Your task to perform on an android device: Open the calendar app, open the side menu, and click the "Day" option Image 0: 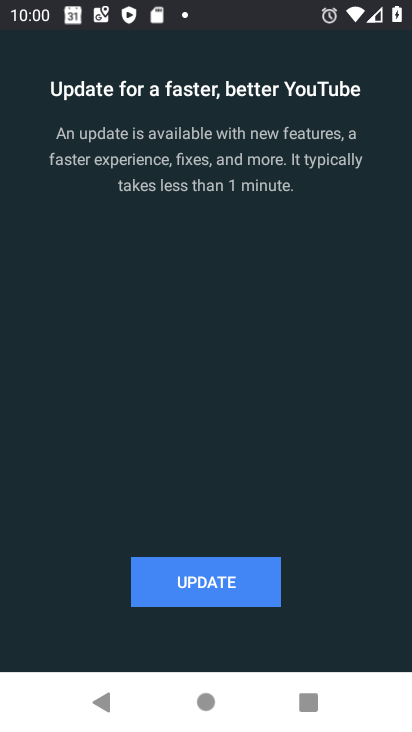
Step 0: press home button
Your task to perform on an android device: Open the calendar app, open the side menu, and click the "Day" option Image 1: 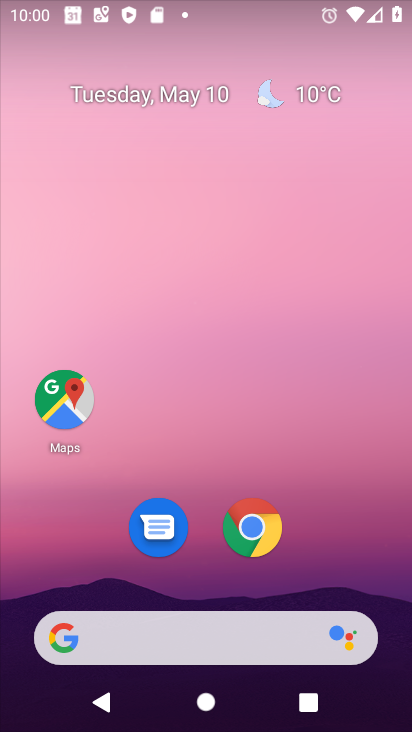
Step 1: drag from (226, 707) to (226, 106)
Your task to perform on an android device: Open the calendar app, open the side menu, and click the "Day" option Image 2: 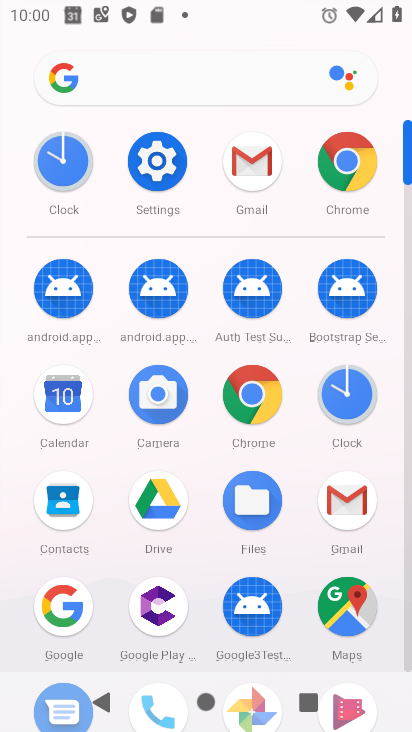
Step 2: click (57, 401)
Your task to perform on an android device: Open the calendar app, open the side menu, and click the "Day" option Image 3: 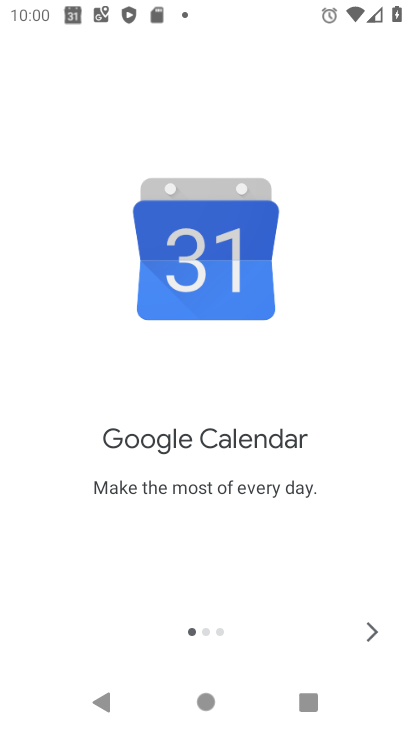
Step 3: click (371, 631)
Your task to perform on an android device: Open the calendar app, open the side menu, and click the "Day" option Image 4: 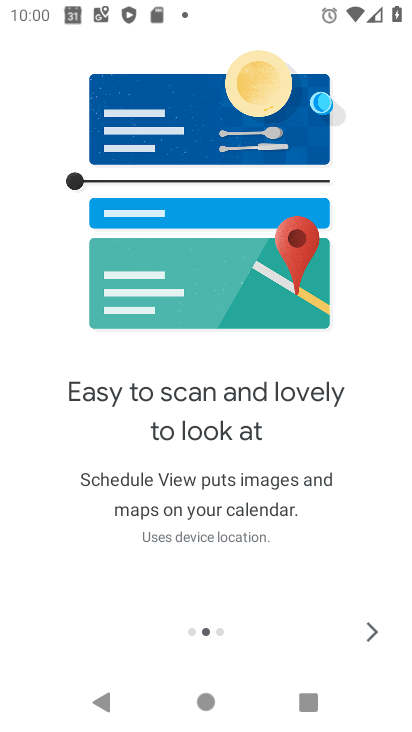
Step 4: click (371, 631)
Your task to perform on an android device: Open the calendar app, open the side menu, and click the "Day" option Image 5: 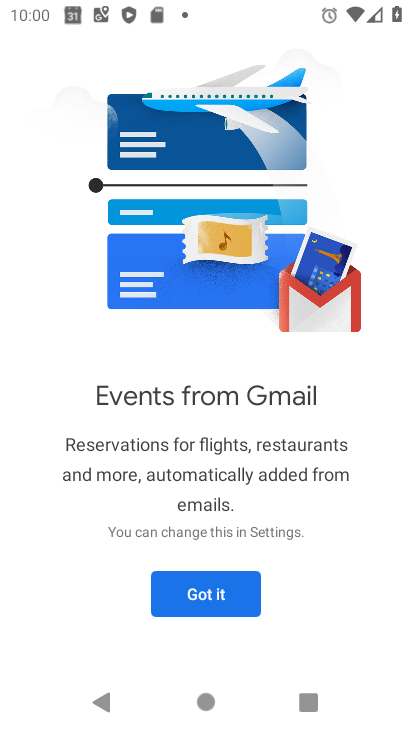
Step 5: click (371, 631)
Your task to perform on an android device: Open the calendar app, open the side menu, and click the "Day" option Image 6: 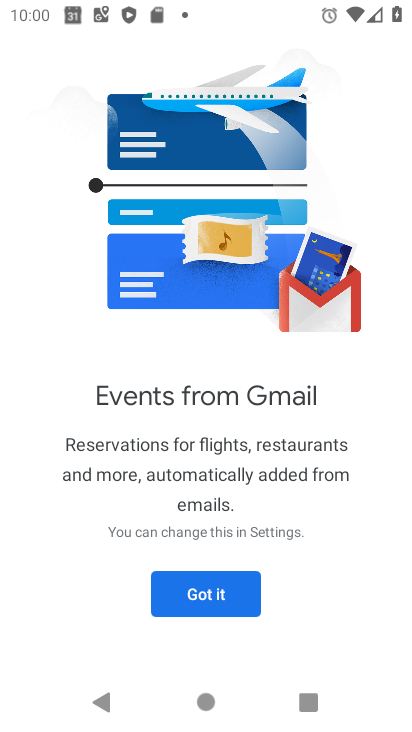
Step 6: click (228, 590)
Your task to perform on an android device: Open the calendar app, open the side menu, and click the "Day" option Image 7: 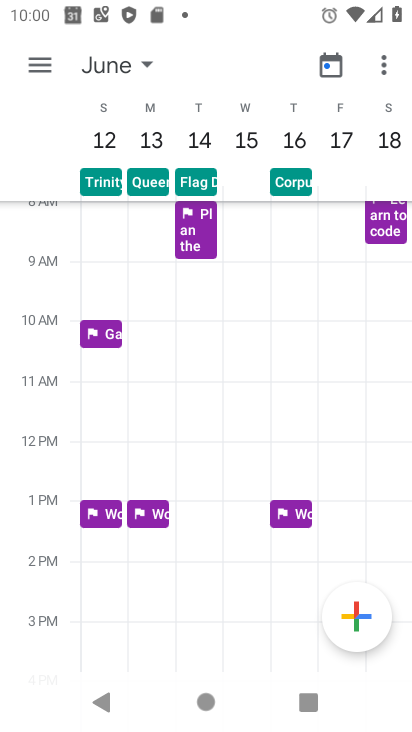
Step 7: click (41, 67)
Your task to perform on an android device: Open the calendar app, open the side menu, and click the "Day" option Image 8: 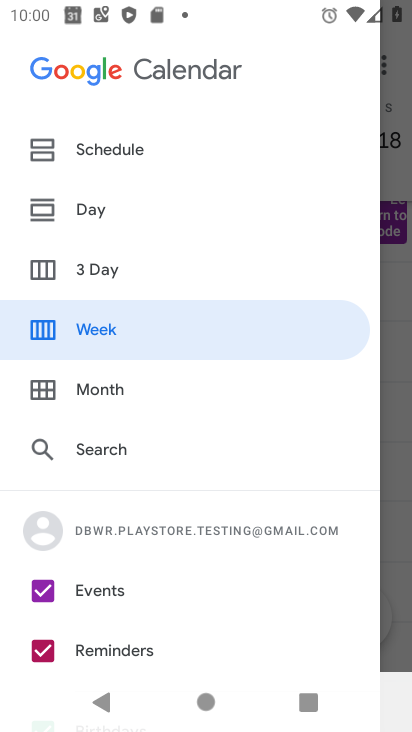
Step 8: click (87, 210)
Your task to perform on an android device: Open the calendar app, open the side menu, and click the "Day" option Image 9: 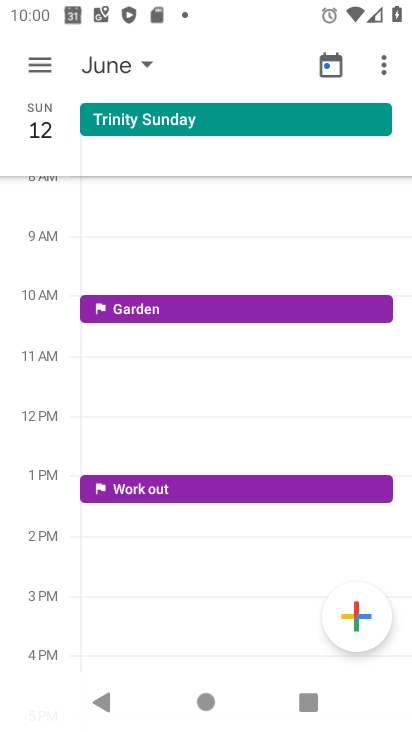
Step 9: task complete